Your task to perform on an android device: stop showing notifications on the lock screen Image 0: 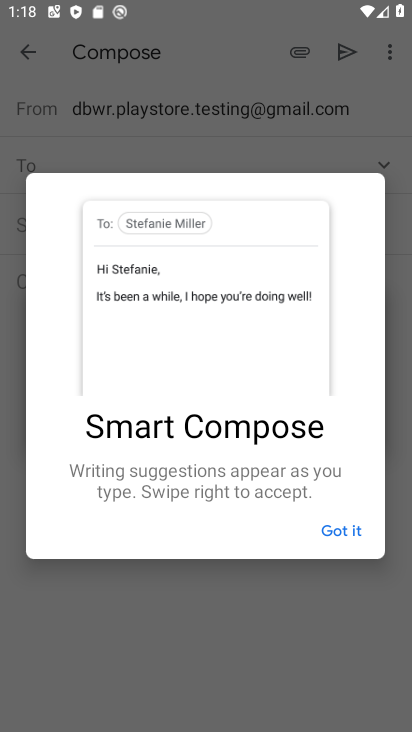
Step 0: task complete